Your task to perform on an android device: Go to internet settings Image 0: 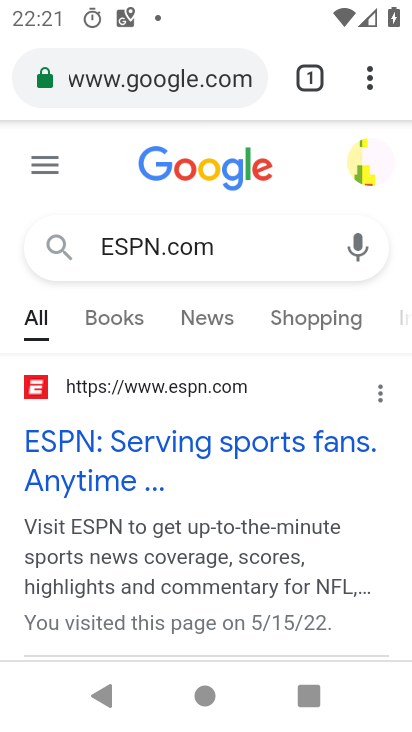
Step 0: press home button
Your task to perform on an android device: Go to internet settings Image 1: 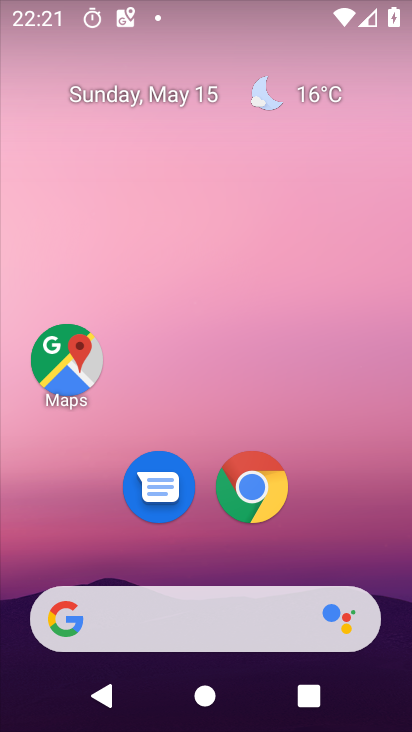
Step 1: drag from (395, 639) to (407, 172)
Your task to perform on an android device: Go to internet settings Image 2: 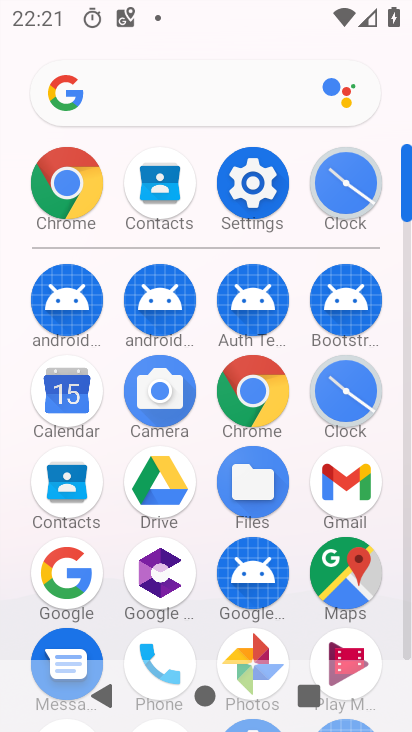
Step 2: click (250, 176)
Your task to perform on an android device: Go to internet settings Image 3: 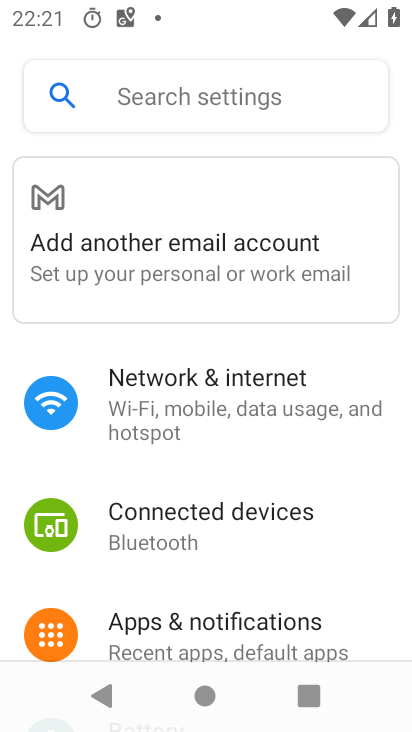
Step 3: click (179, 384)
Your task to perform on an android device: Go to internet settings Image 4: 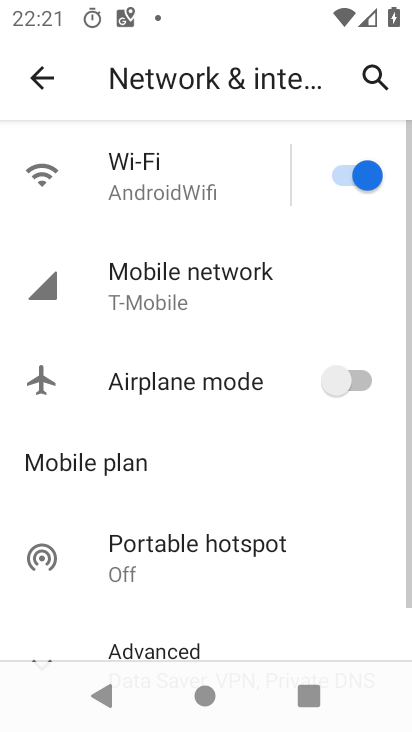
Step 4: task complete